Your task to perform on an android device: Go to Amazon Image 0: 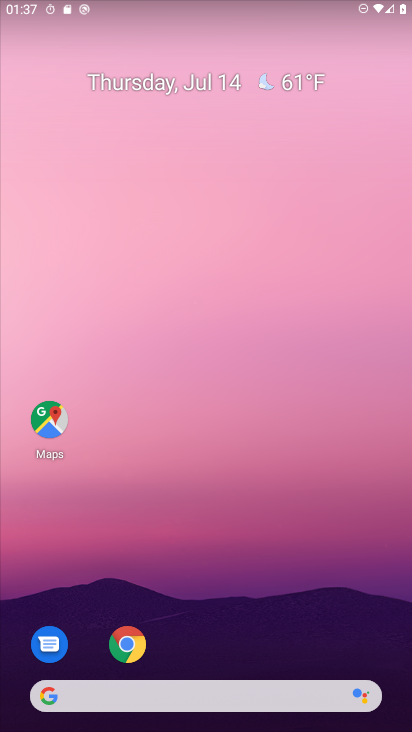
Step 0: drag from (267, 572) to (284, 120)
Your task to perform on an android device: Go to Amazon Image 1: 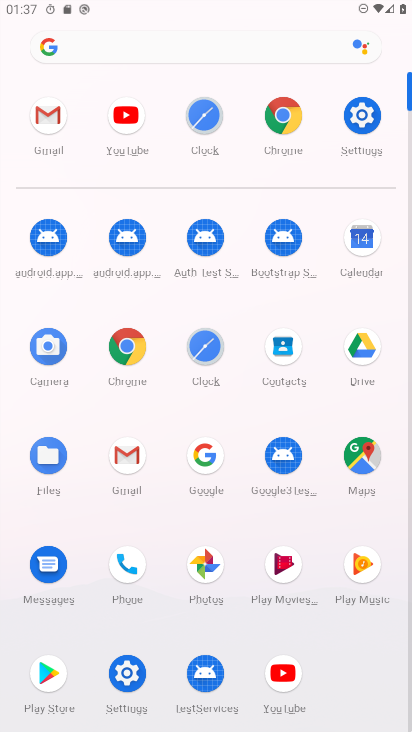
Step 1: click (124, 346)
Your task to perform on an android device: Go to Amazon Image 2: 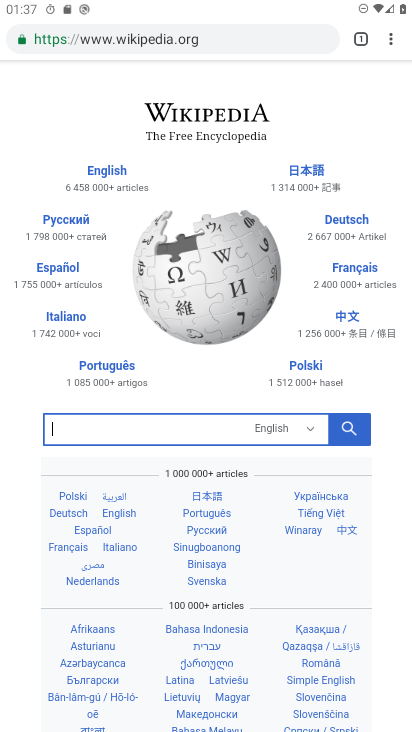
Step 2: click (145, 35)
Your task to perform on an android device: Go to Amazon Image 3: 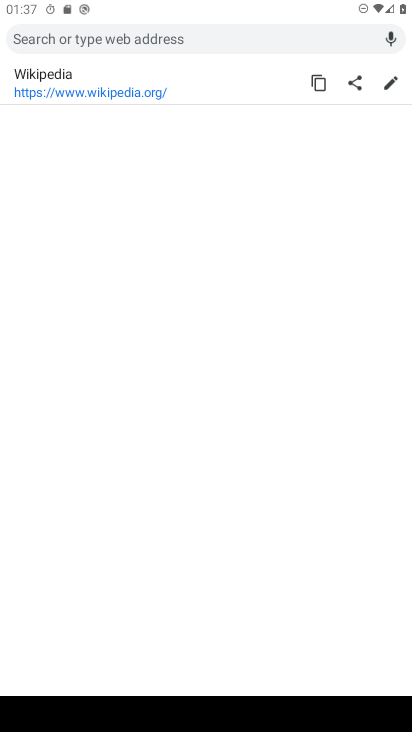
Step 3: type "amazon"
Your task to perform on an android device: Go to Amazon Image 4: 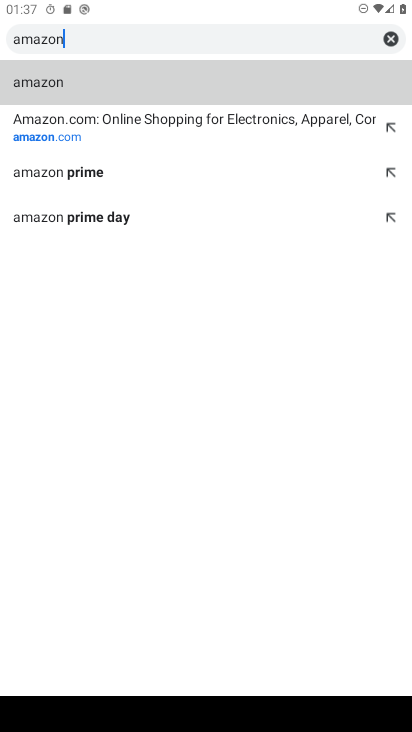
Step 4: click (73, 136)
Your task to perform on an android device: Go to Amazon Image 5: 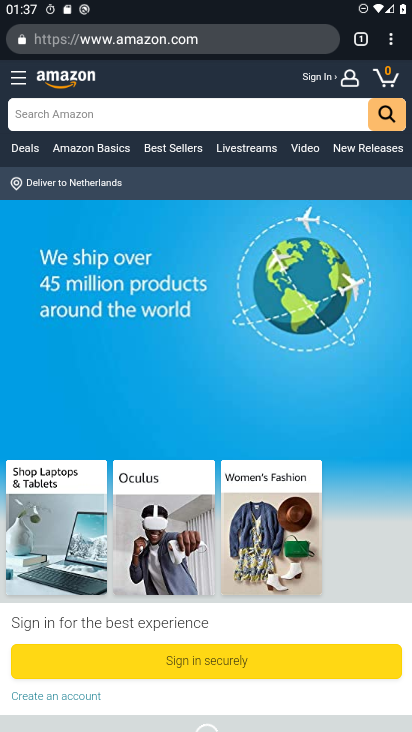
Step 5: task complete